Your task to perform on an android device: toggle notifications settings in the gmail app Image 0: 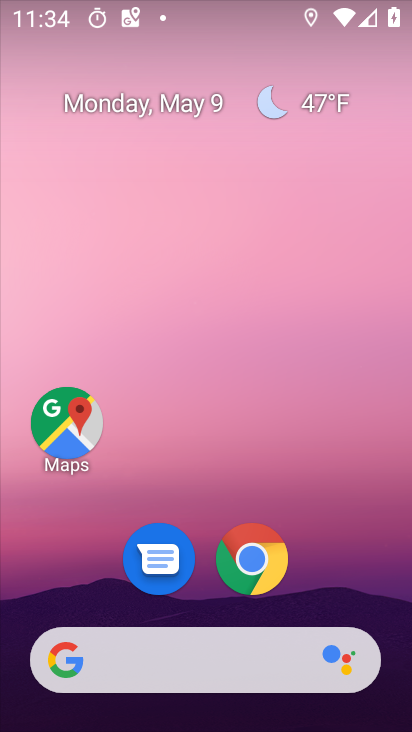
Step 0: drag from (342, 559) to (336, 33)
Your task to perform on an android device: toggle notifications settings in the gmail app Image 1: 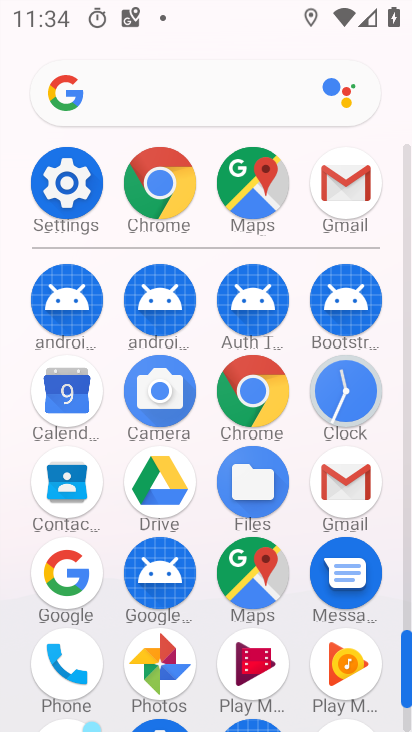
Step 1: click (357, 192)
Your task to perform on an android device: toggle notifications settings in the gmail app Image 2: 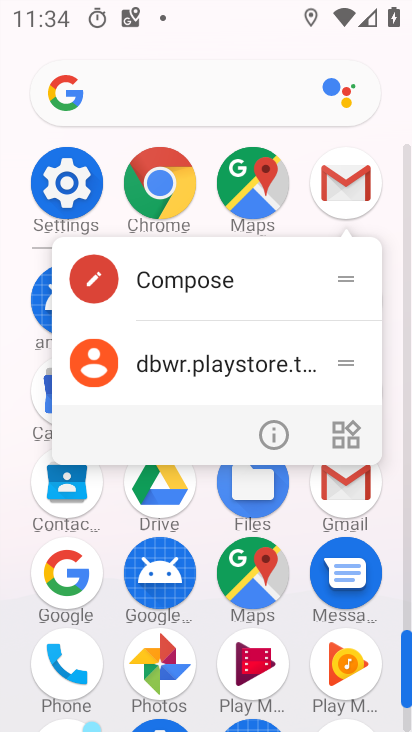
Step 2: click (256, 419)
Your task to perform on an android device: toggle notifications settings in the gmail app Image 3: 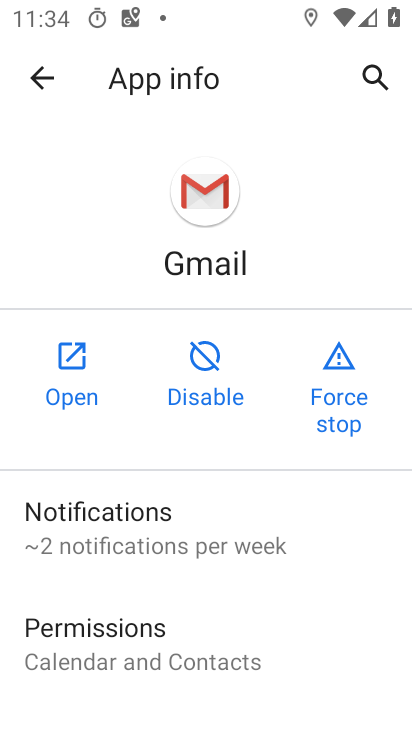
Step 3: click (186, 529)
Your task to perform on an android device: toggle notifications settings in the gmail app Image 4: 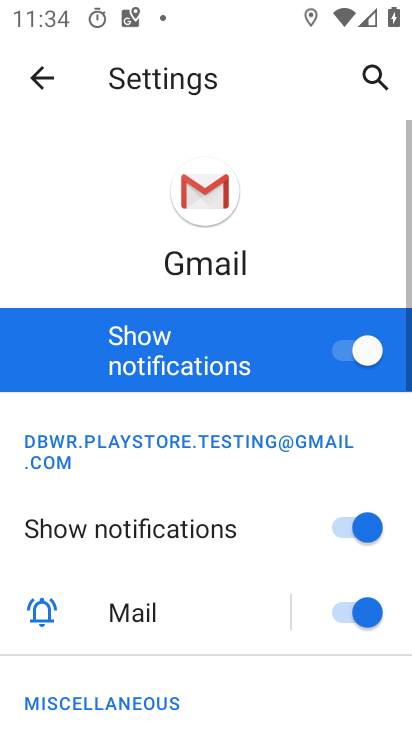
Step 4: click (349, 351)
Your task to perform on an android device: toggle notifications settings in the gmail app Image 5: 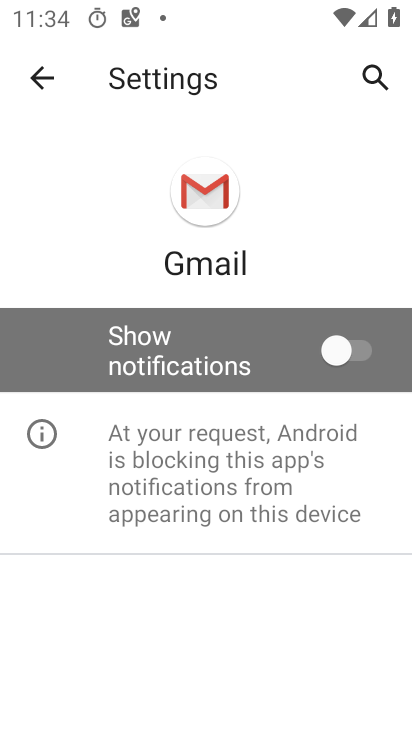
Step 5: task complete